Your task to perform on an android device: change your default location settings in chrome Image 0: 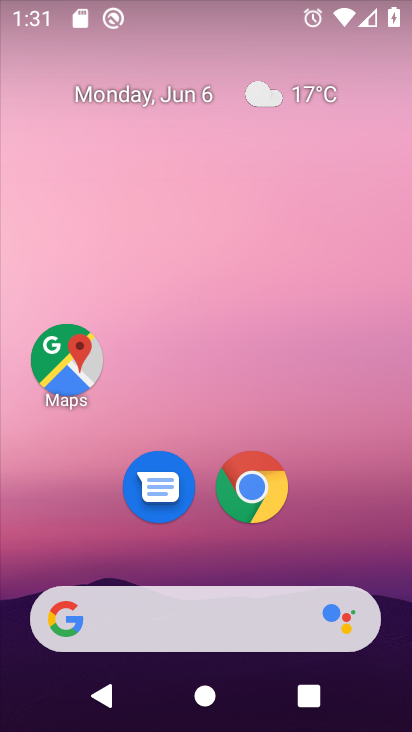
Step 0: click (405, 554)
Your task to perform on an android device: change your default location settings in chrome Image 1: 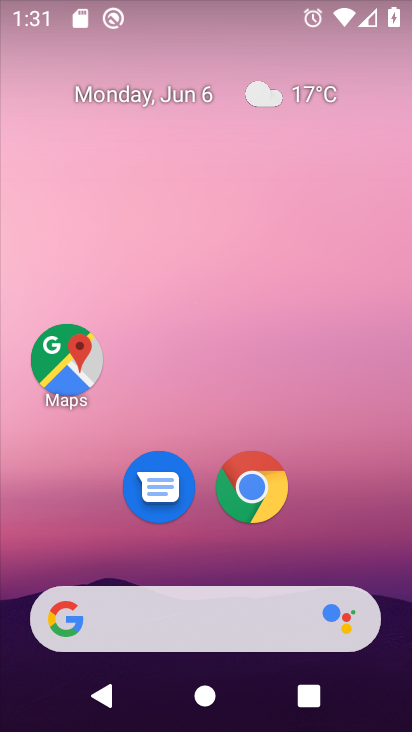
Step 1: drag from (262, 580) to (299, 119)
Your task to perform on an android device: change your default location settings in chrome Image 2: 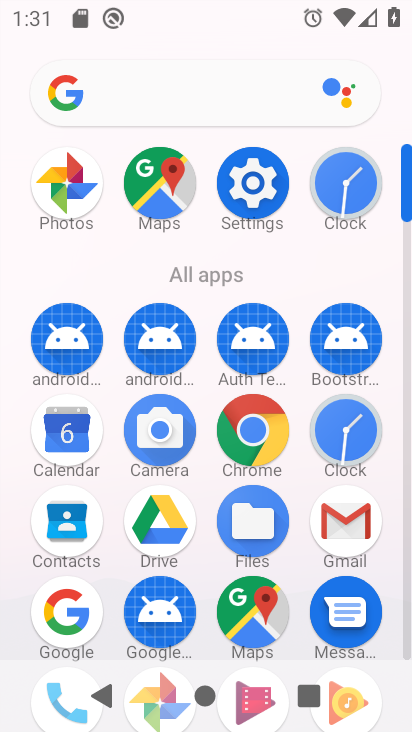
Step 2: click (247, 434)
Your task to perform on an android device: change your default location settings in chrome Image 3: 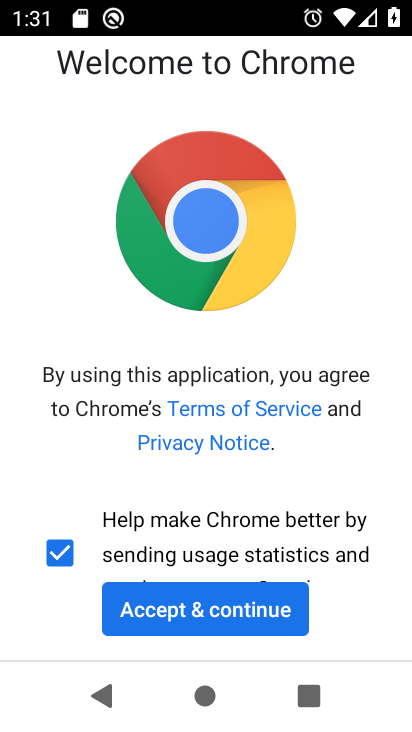
Step 3: click (211, 588)
Your task to perform on an android device: change your default location settings in chrome Image 4: 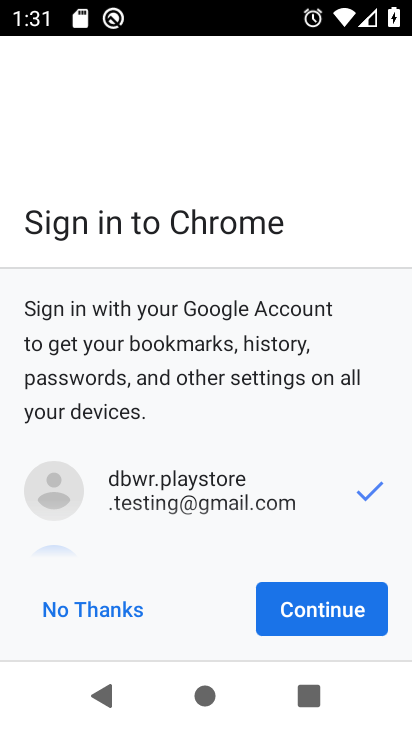
Step 4: click (130, 620)
Your task to perform on an android device: change your default location settings in chrome Image 5: 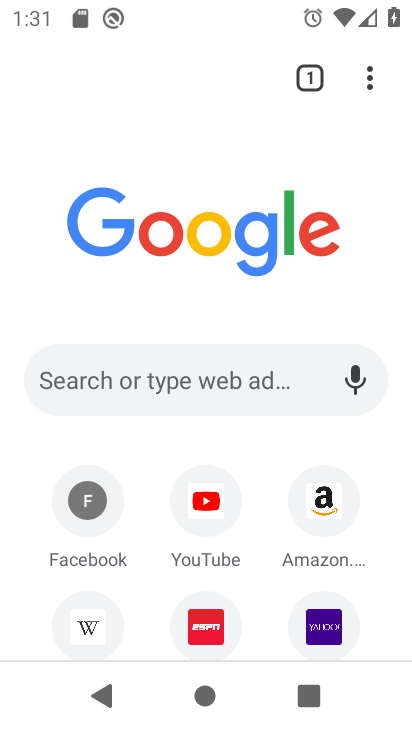
Step 5: click (375, 96)
Your task to perform on an android device: change your default location settings in chrome Image 6: 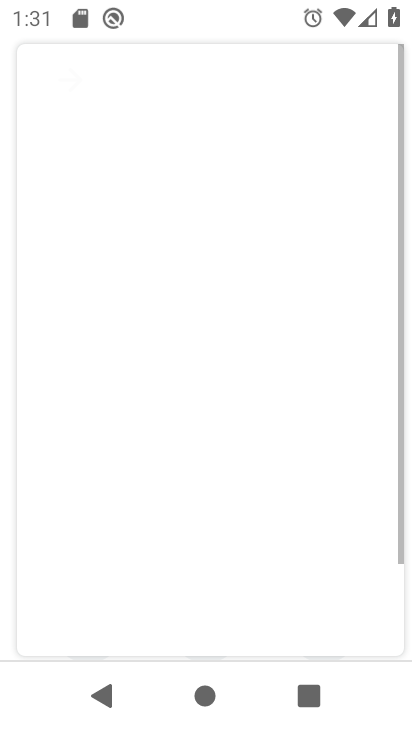
Step 6: click (369, 68)
Your task to perform on an android device: change your default location settings in chrome Image 7: 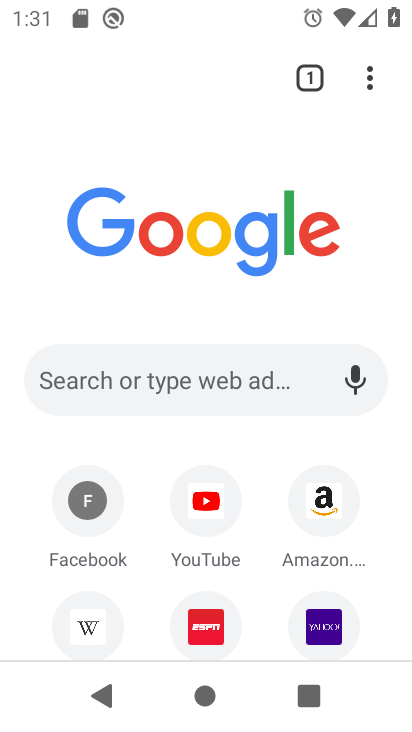
Step 7: click (372, 74)
Your task to perform on an android device: change your default location settings in chrome Image 8: 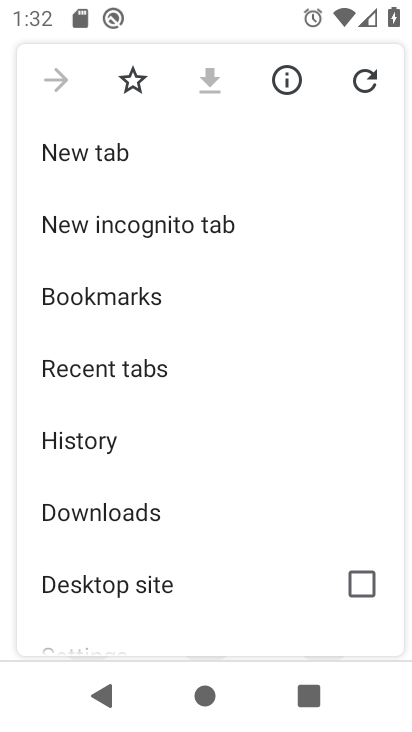
Step 8: drag from (141, 637) to (229, 168)
Your task to perform on an android device: change your default location settings in chrome Image 9: 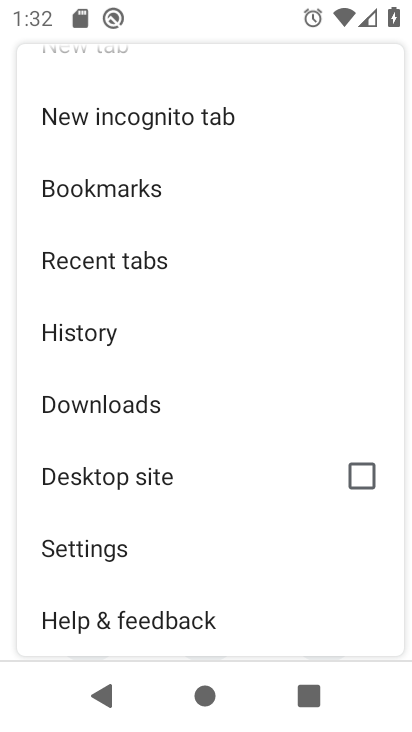
Step 9: click (88, 545)
Your task to perform on an android device: change your default location settings in chrome Image 10: 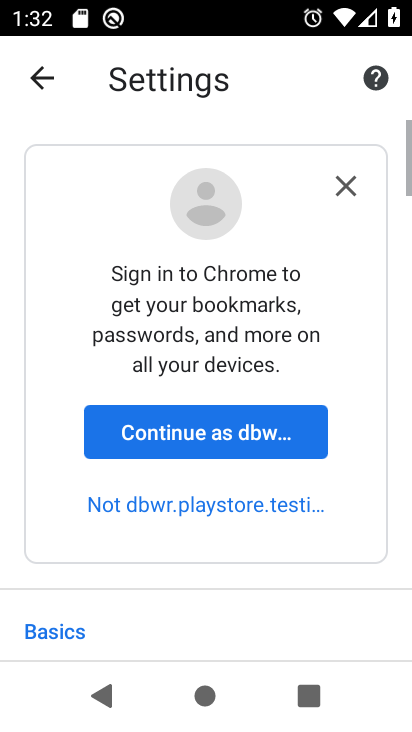
Step 10: drag from (88, 545) to (71, 149)
Your task to perform on an android device: change your default location settings in chrome Image 11: 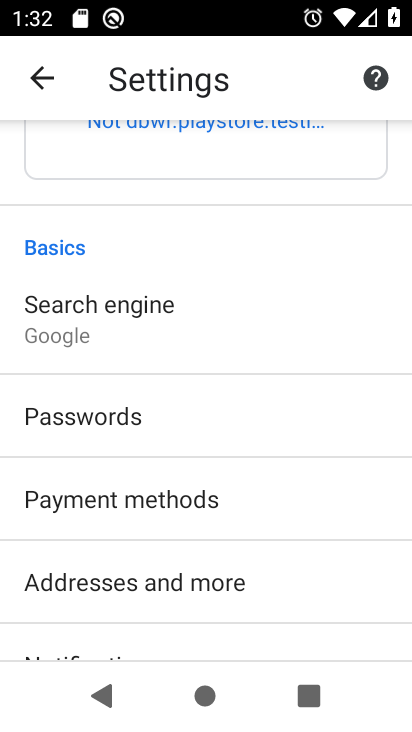
Step 11: drag from (190, 552) to (199, 220)
Your task to perform on an android device: change your default location settings in chrome Image 12: 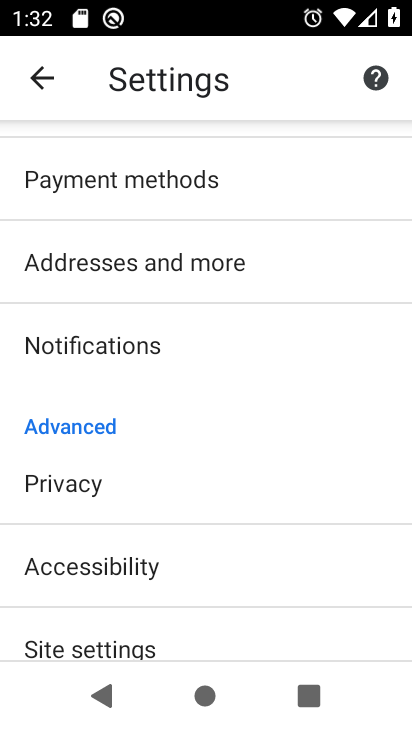
Step 12: click (102, 641)
Your task to perform on an android device: change your default location settings in chrome Image 13: 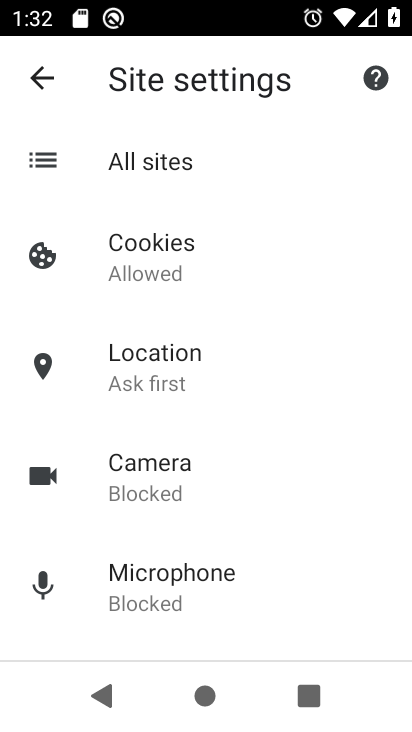
Step 13: click (152, 359)
Your task to perform on an android device: change your default location settings in chrome Image 14: 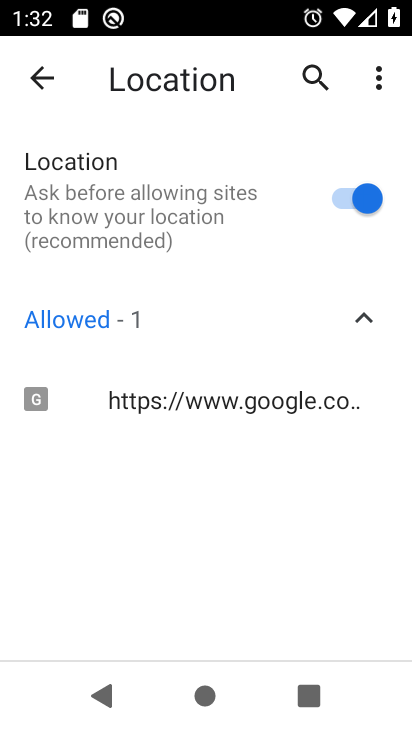
Step 14: click (343, 200)
Your task to perform on an android device: change your default location settings in chrome Image 15: 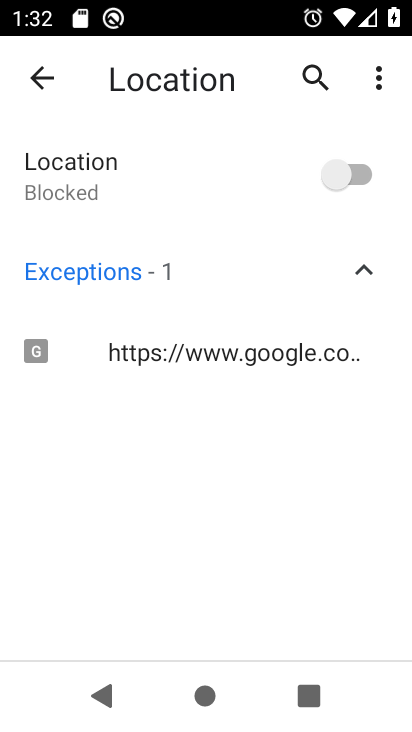
Step 15: task complete